Your task to perform on an android device: Search for Italian restaurants on Maps Image 0: 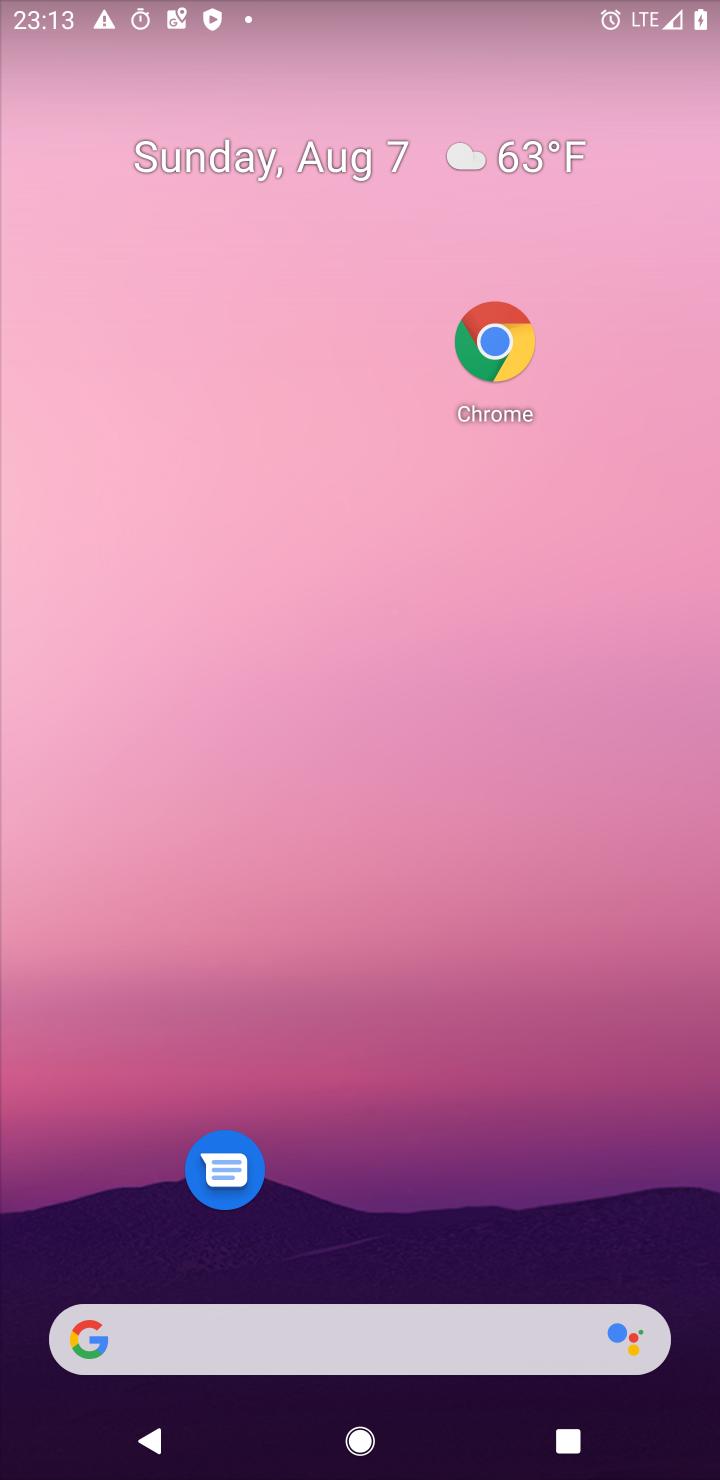
Step 0: drag from (474, 1345) to (661, 66)
Your task to perform on an android device: Search for Italian restaurants on Maps Image 1: 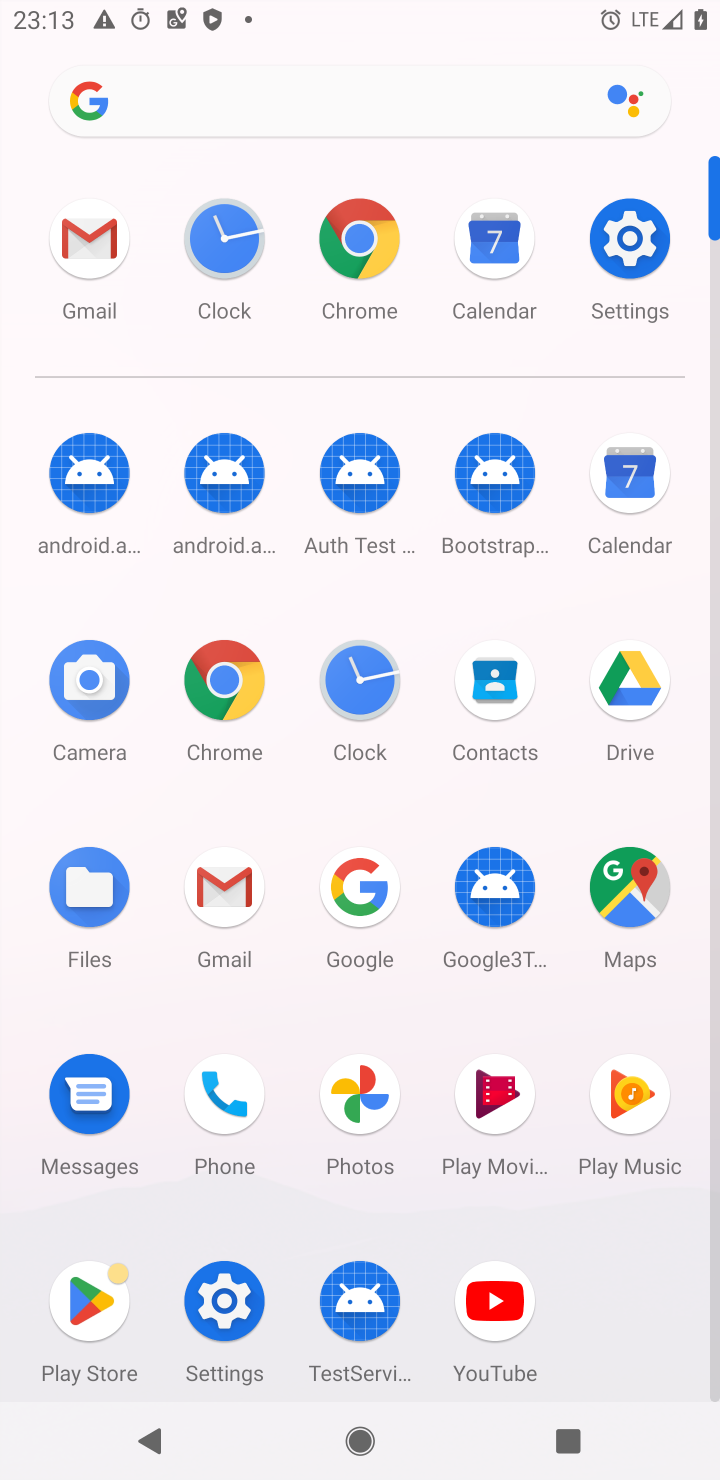
Step 1: click (627, 881)
Your task to perform on an android device: Search for Italian restaurants on Maps Image 2: 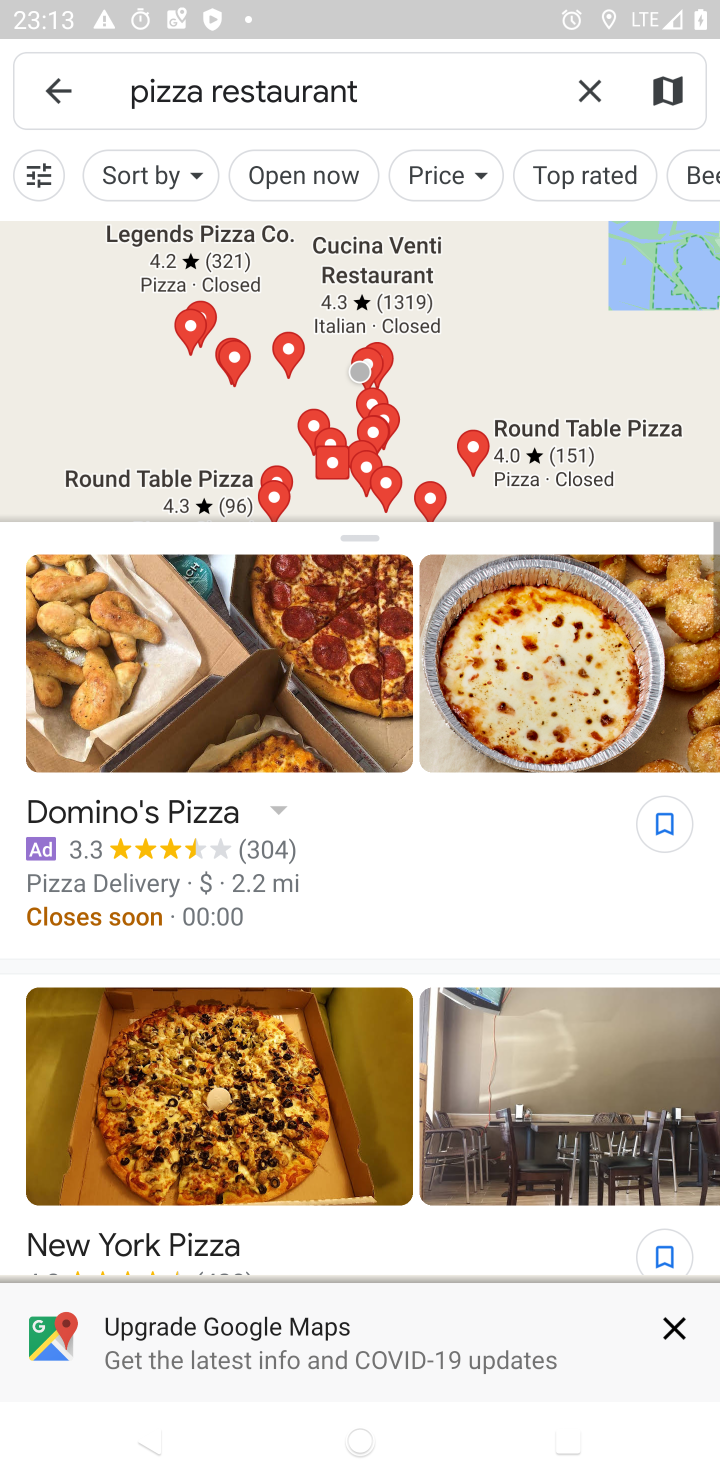
Step 2: click (583, 85)
Your task to perform on an android device: Search for Italian restaurants on Maps Image 3: 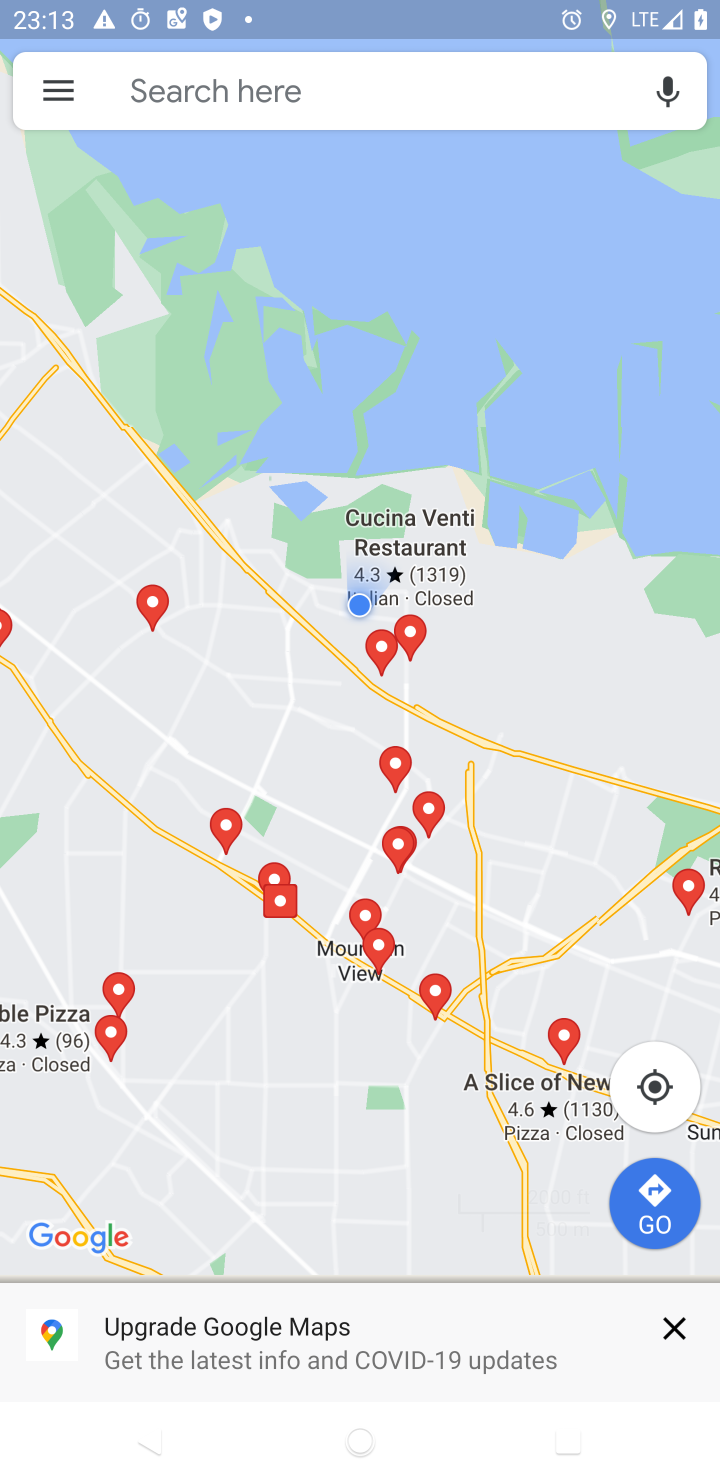
Step 3: click (333, 87)
Your task to perform on an android device: Search for Italian restaurants on Maps Image 4: 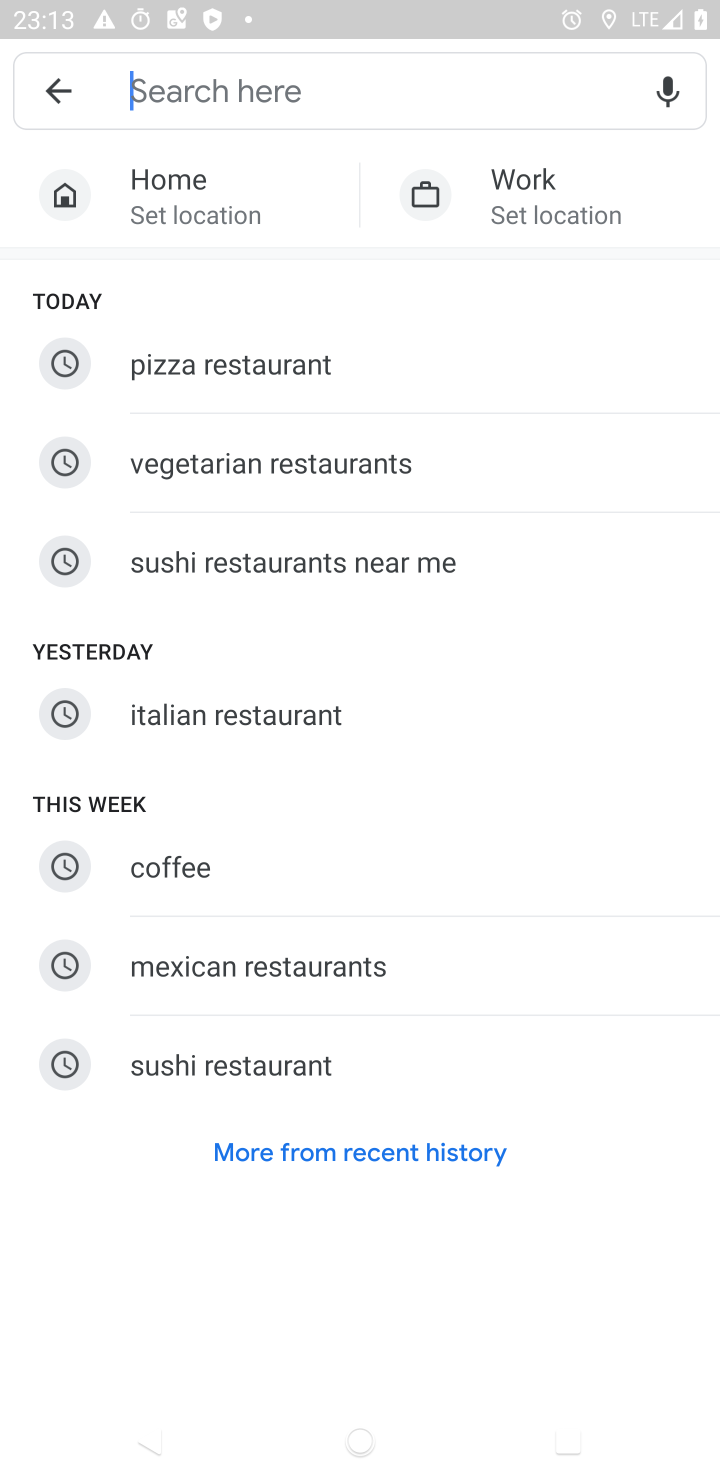
Step 4: click (333, 87)
Your task to perform on an android device: Search for Italian restaurants on Maps Image 5: 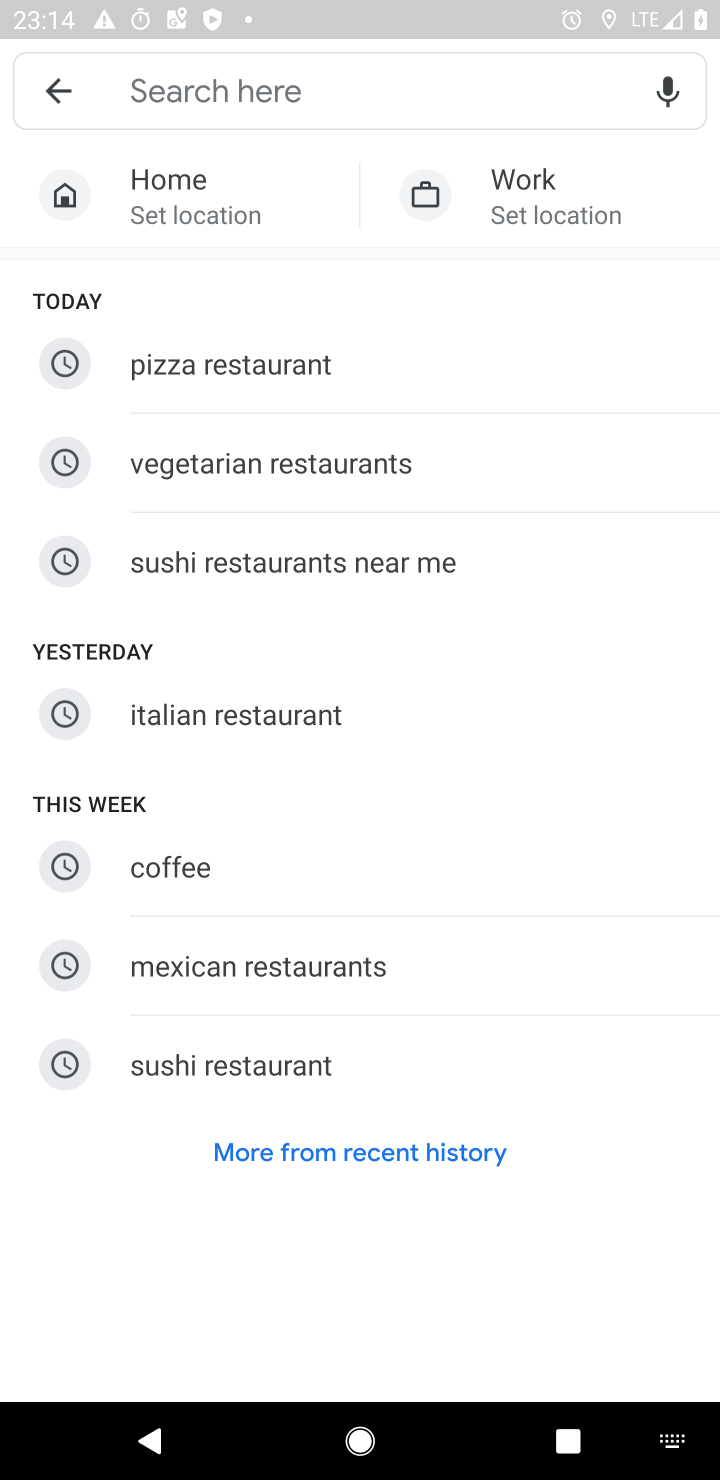
Step 5: click (269, 714)
Your task to perform on an android device: Search for Italian restaurants on Maps Image 6: 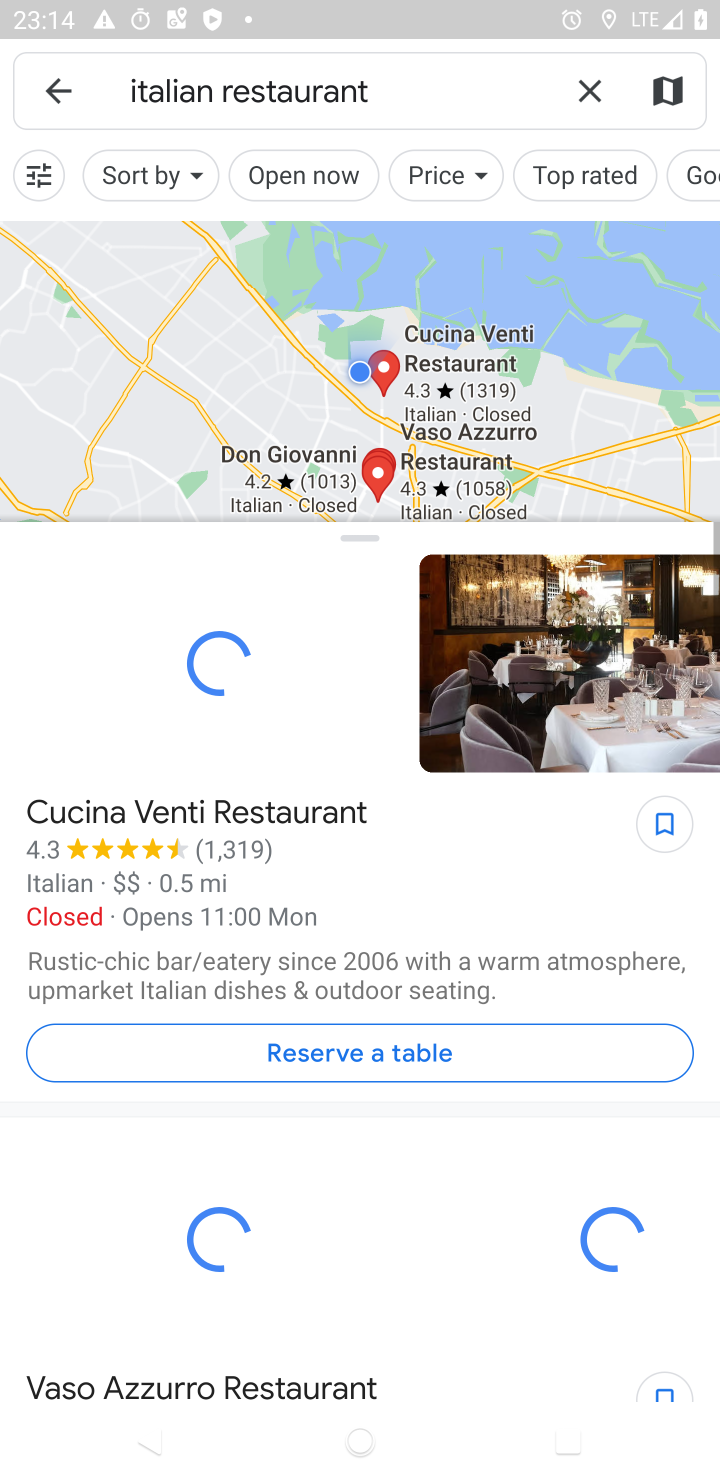
Step 6: task complete